Your task to perform on an android device: uninstall "Firefox Browser" Image 0: 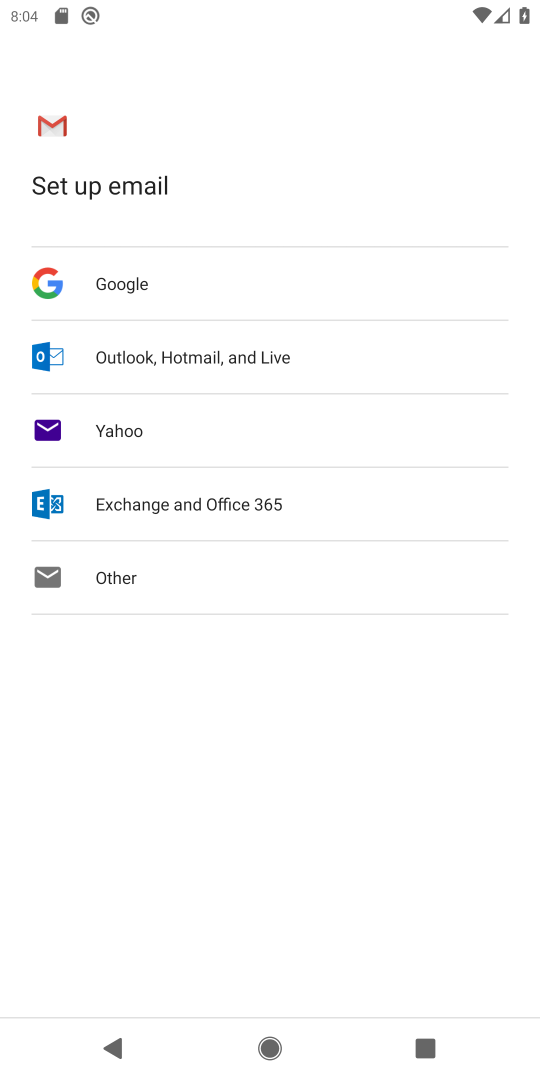
Step 0: press home button
Your task to perform on an android device: uninstall "Firefox Browser" Image 1: 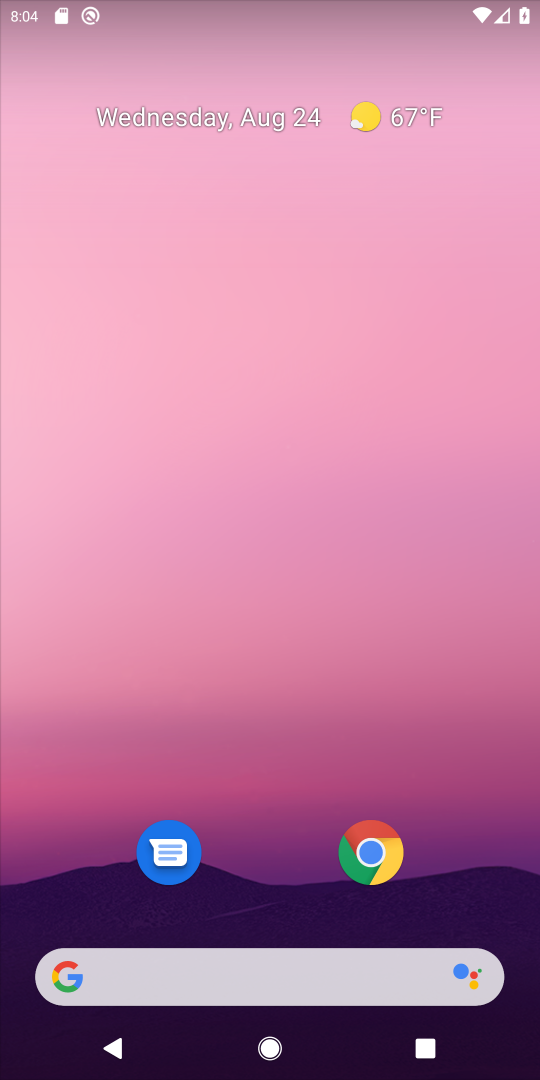
Step 1: drag from (303, 977) to (352, 226)
Your task to perform on an android device: uninstall "Firefox Browser" Image 2: 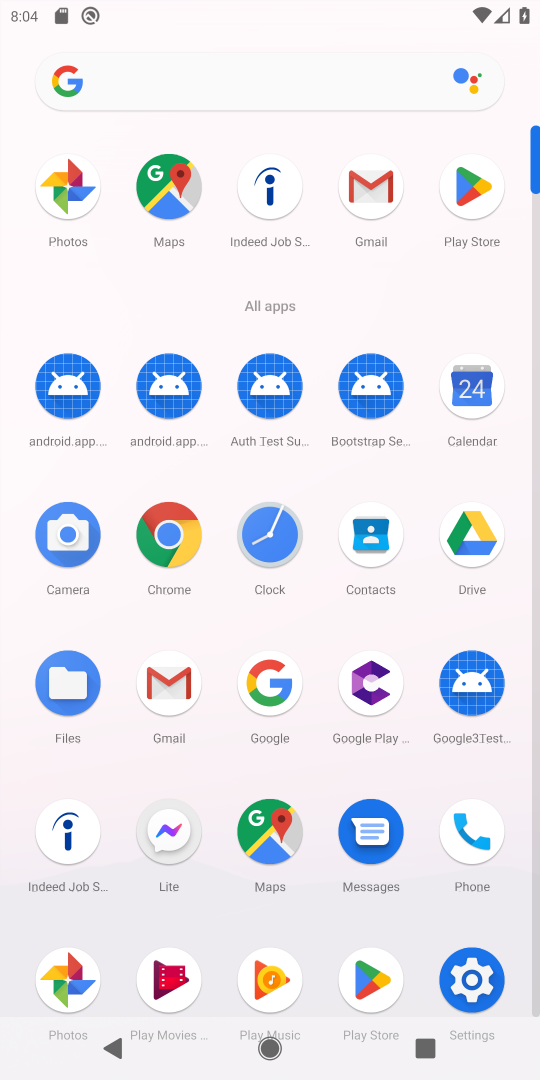
Step 2: click (480, 194)
Your task to perform on an android device: uninstall "Firefox Browser" Image 3: 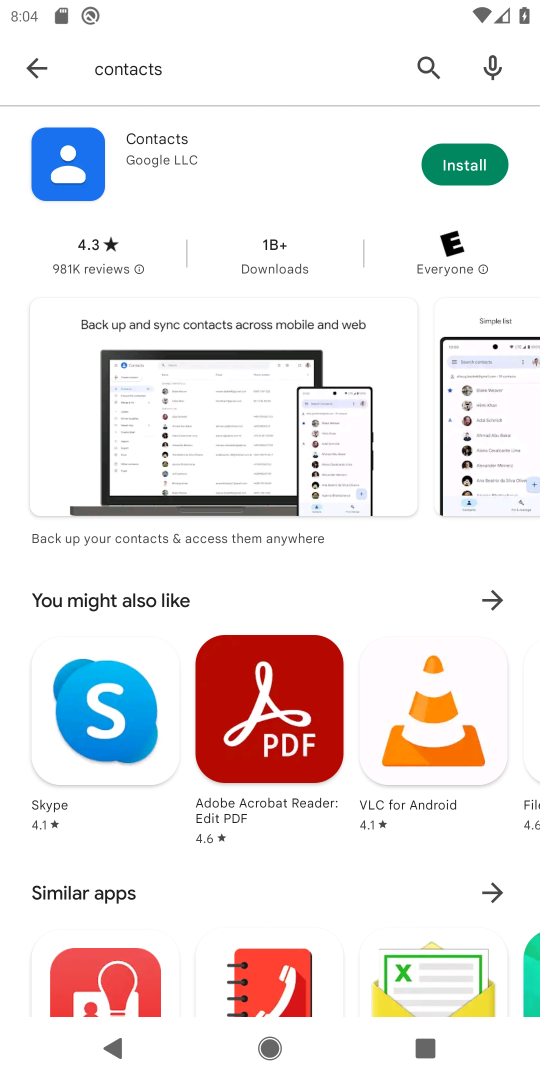
Step 3: press back button
Your task to perform on an android device: uninstall "Firefox Browser" Image 4: 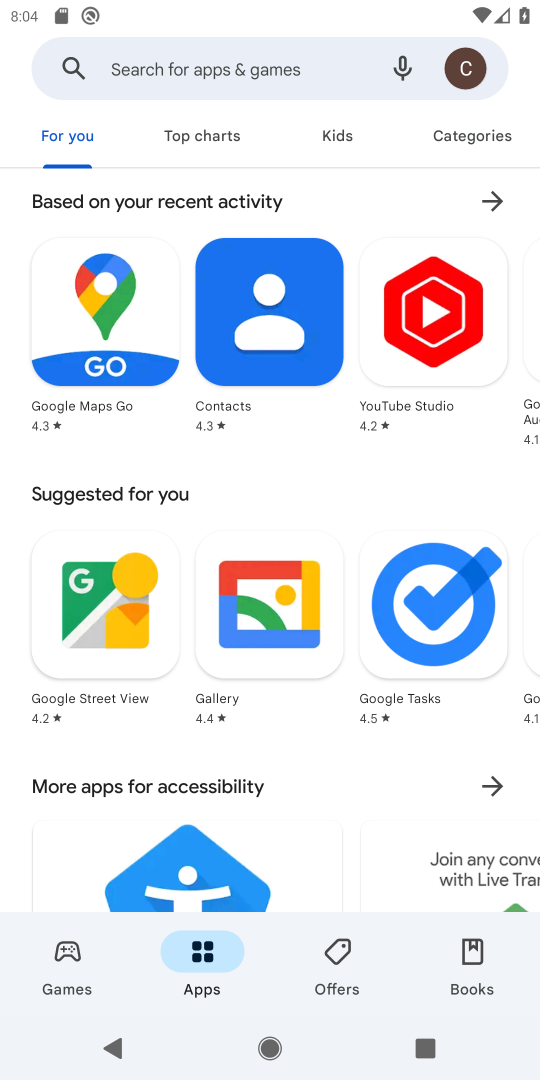
Step 4: click (228, 58)
Your task to perform on an android device: uninstall "Firefox Browser" Image 5: 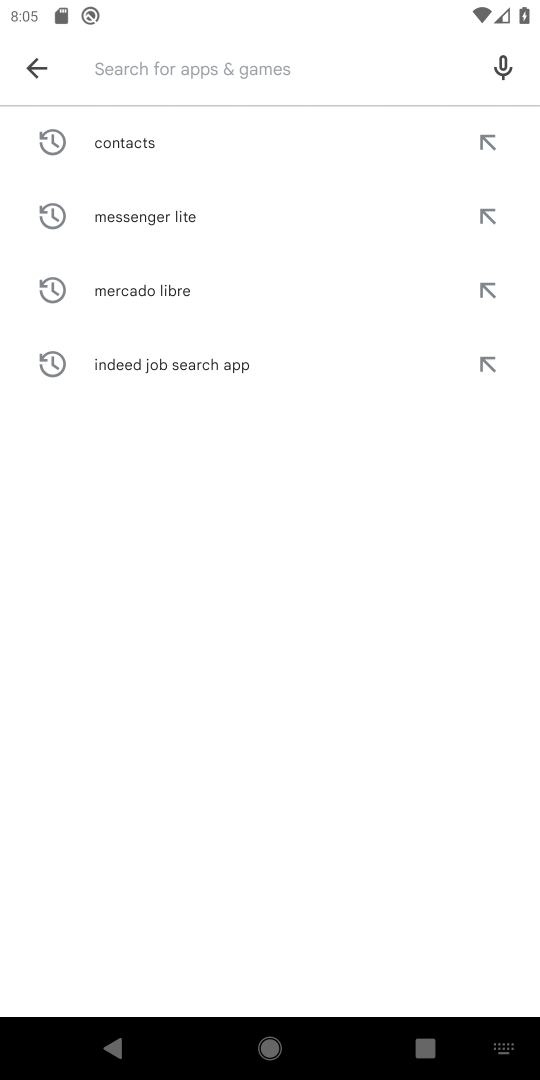
Step 5: type "Firefox Browser"
Your task to perform on an android device: uninstall "Firefox Browser" Image 6: 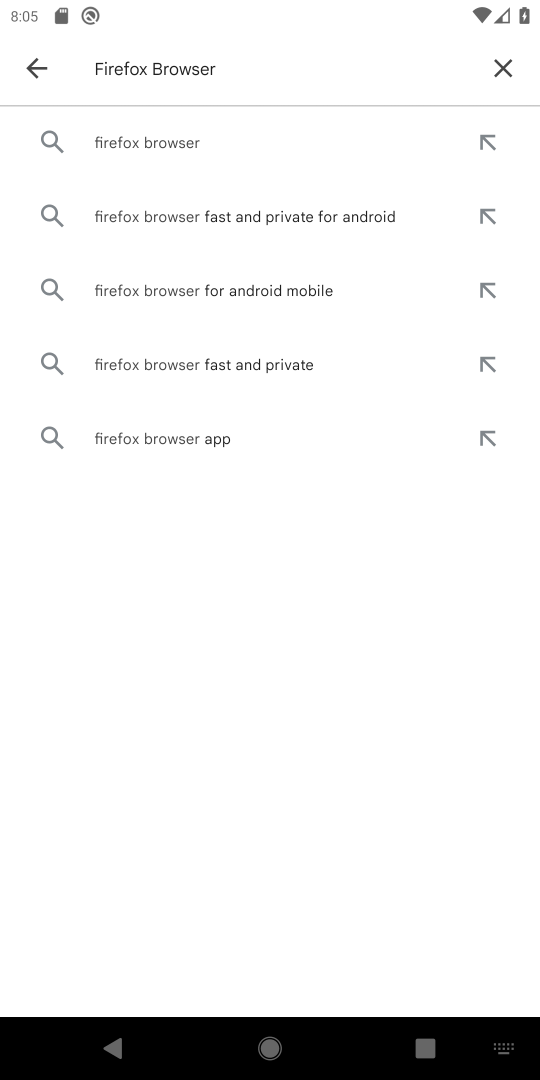
Step 6: click (208, 150)
Your task to perform on an android device: uninstall "Firefox Browser" Image 7: 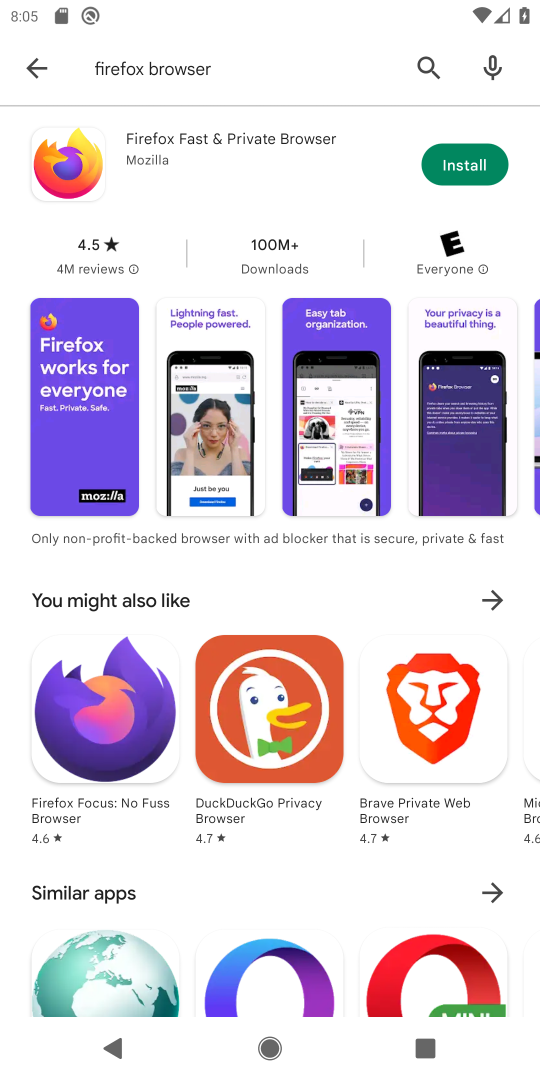
Step 7: task complete